Your task to perform on an android device: open a bookmark in the chrome app Image 0: 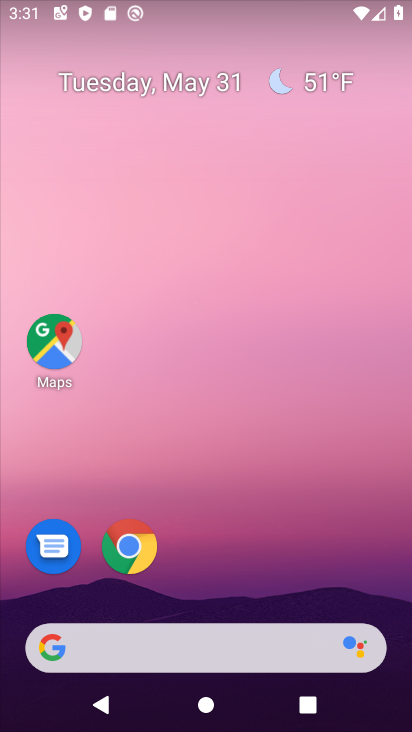
Step 0: drag from (190, 588) to (209, 373)
Your task to perform on an android device: open a bookmark in the chrome app Image 1: 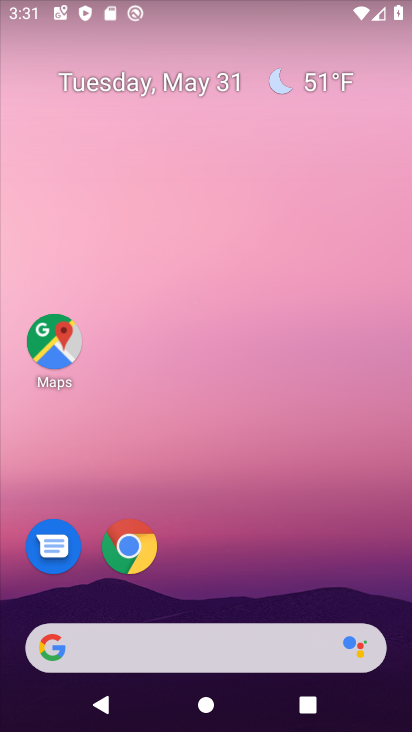
Step 1: click (120, 552)
Your task to perform on an android device: open a bookmark in the chrome app Image 2: 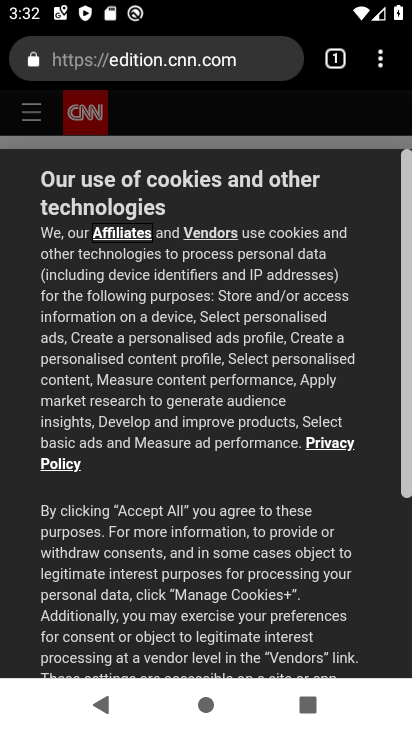
Step 2: press home button
Your task to perform on an android device: open a bookmark in the chrome app Image 3: 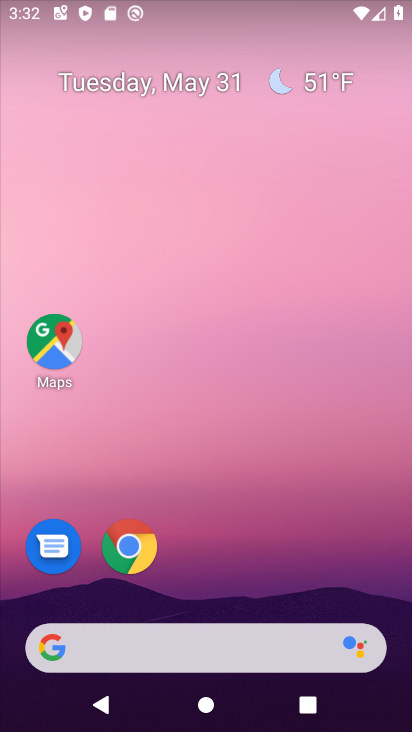
Step 3: click (136, 544)
Your task to perform on an android device: open a bookmark in the chrome app Image 4: 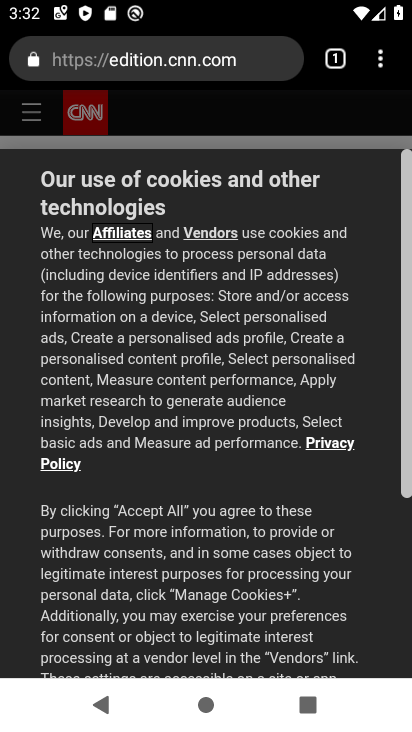
Step 4: click (383, 61)
Your task to perform on an android device: open a bookmark in the chrome app Image 5: 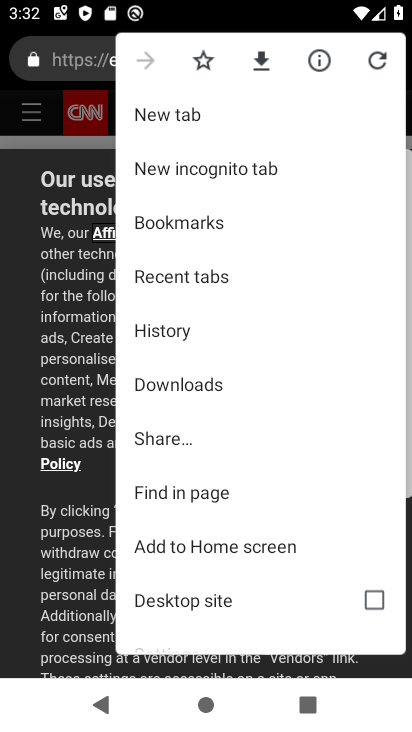
Step 5: click (148, 234)
Your task to perform on an android device: open a bookmark in the chrome app Image 6: 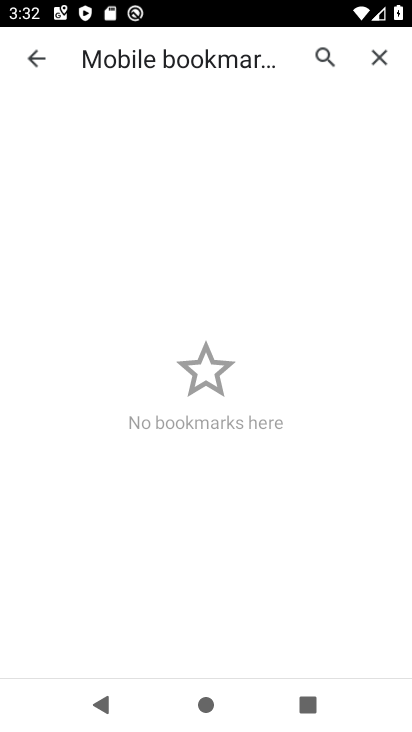
Step 6: task complete